Your task to perform on an android device: Open sound settings Image 0: 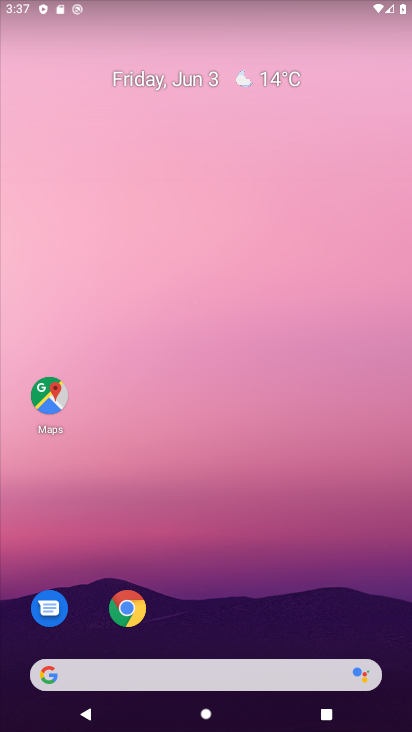
Step 0: drag from (172, 666) to (192, 282)
Your task to perform on an android device: Open sound settings Image 1: 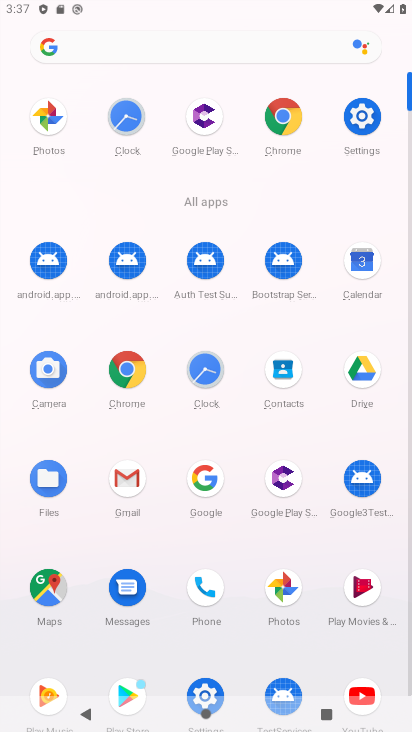
Step 1: click (365, 110)
Your task to perform on an android device: Open sound settings Image 2: 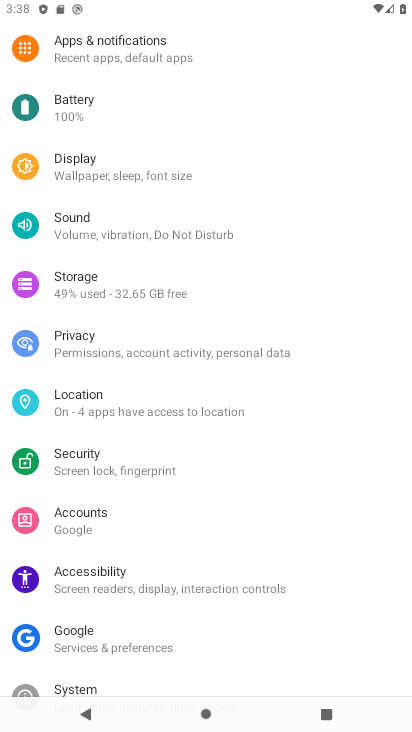
Step 2: click (76, 230)
Your task to perform on an android device: Open sound settings Image 3: 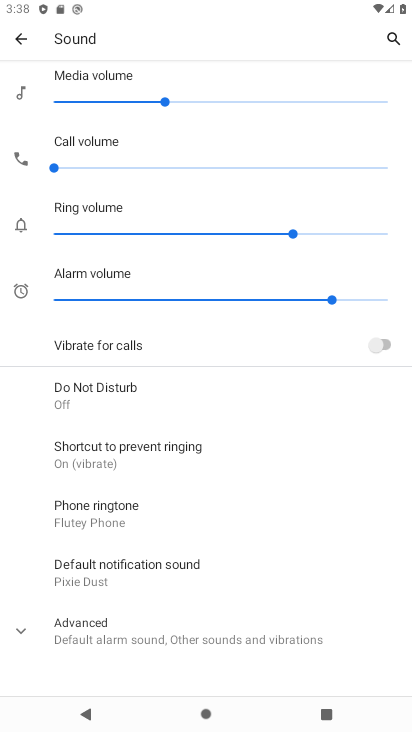
Step 3: click (89, 630)
Your task to perform on an android device: Open sound settings Image 4: 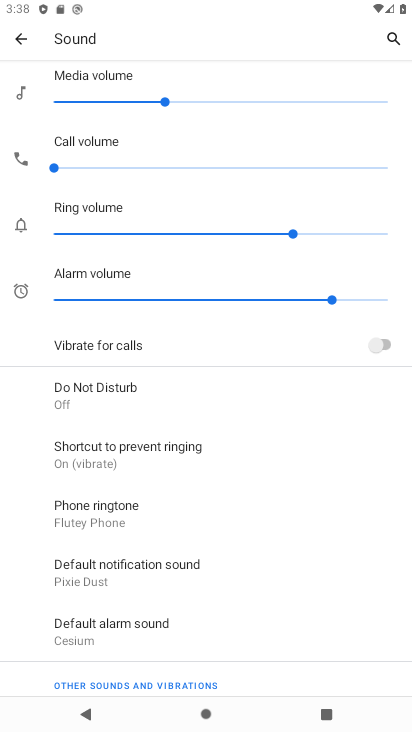
Step 4: task complete